Your task to perform on an android device: Open Android settings Image 0: 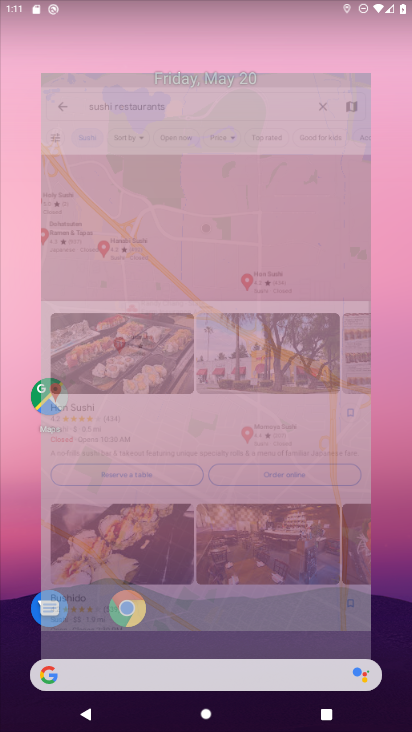
Step 0: press home button
Your task to perform on an android device: Open Android settings Image 1: 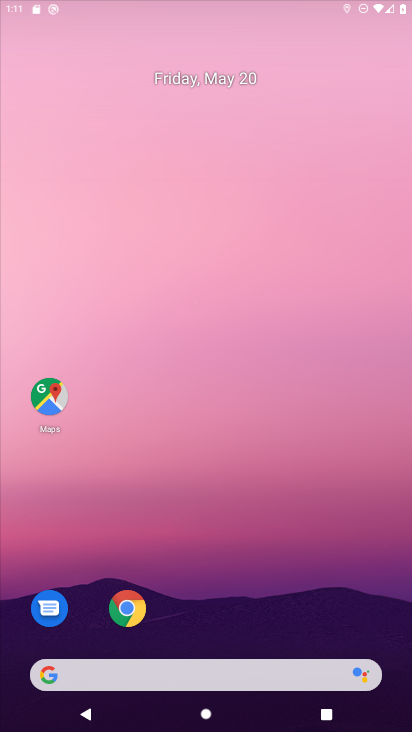
Step 1: drag from (273, 609) to (411, 364)
Your task to perform on an android device: Open Android settings Image 2: 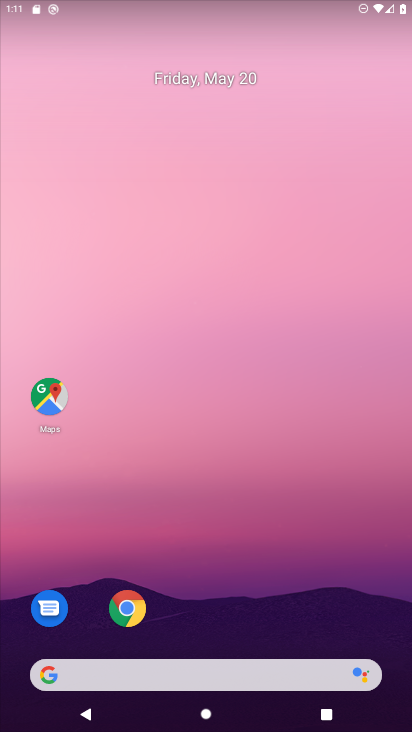
Step 2: drag from (203, 609) to (226, 49)
Your task to perform on an android device: Open Android settings Image 3: 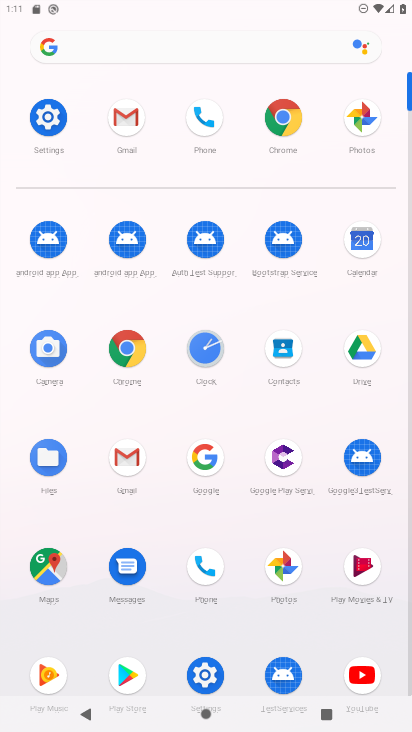
Step 3: click (216, 647)
Your task to perform on an android device: Open Android settings Image 4: 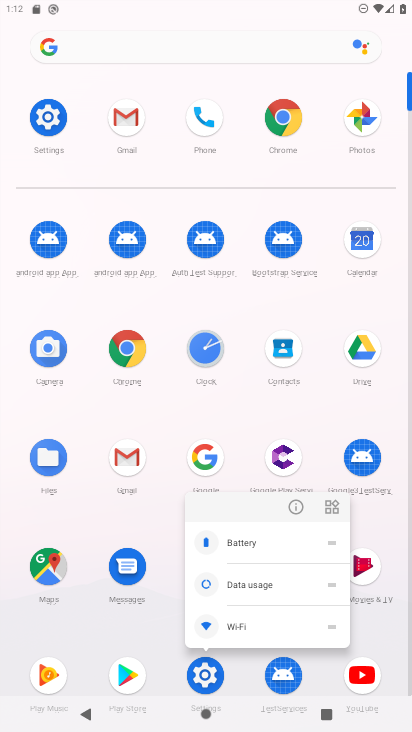
Step 4: click (216, 661)
Your task to perform on an android device: Open Android settings Image 5: 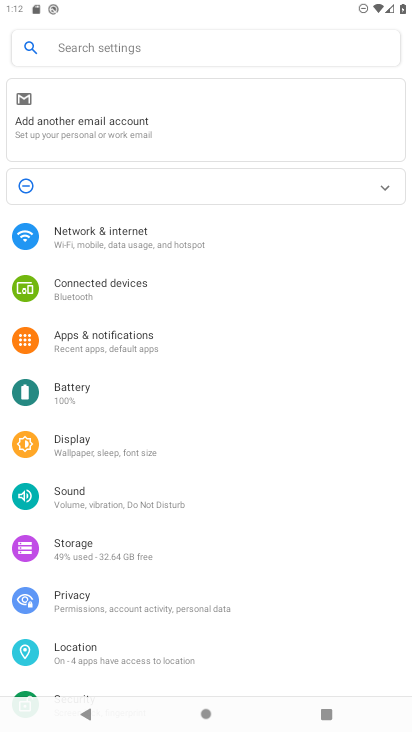
Step 5: drag from (158, 655) to (135, 132)
Your task to perform on an android device: Open Android settings Image 6: 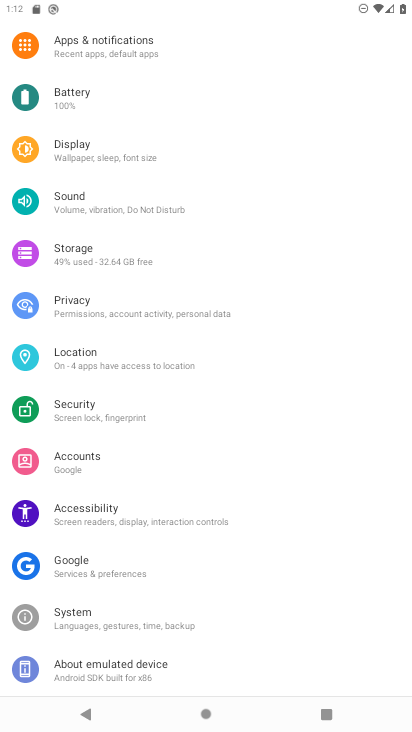
Step 6: click (77, 663)
Your task to perform on an android device: Open Android settings Image 7: 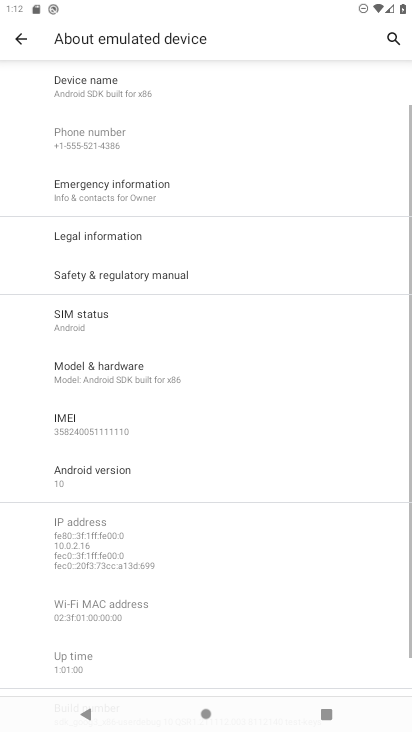
Step 7: click (88, 462)
Your task to perform on an android device: Open Android settings Image 8: 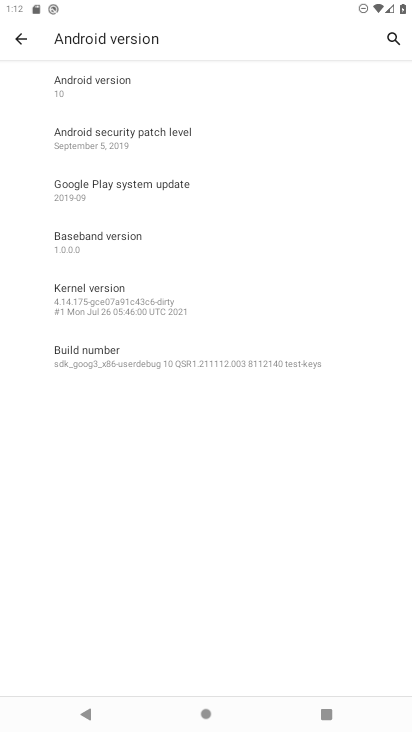
Step 8: task complete